Your task to perform on an android device: Go to wifi settings Image 0: 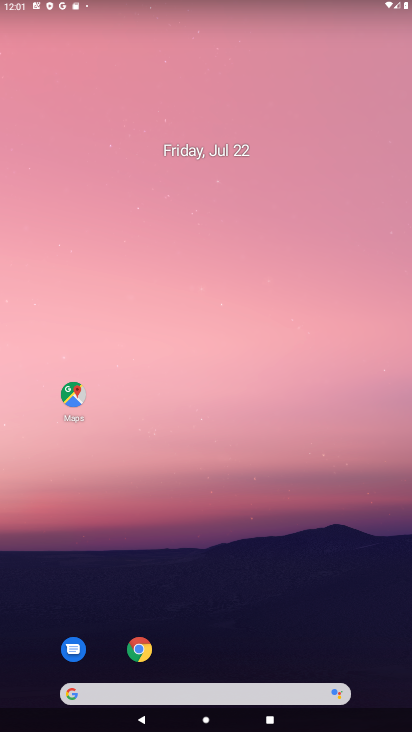
Step 0: drag from (218, 706) to (218, 400)
Your task to perform on an android device: Go to wifi settings Image 1: 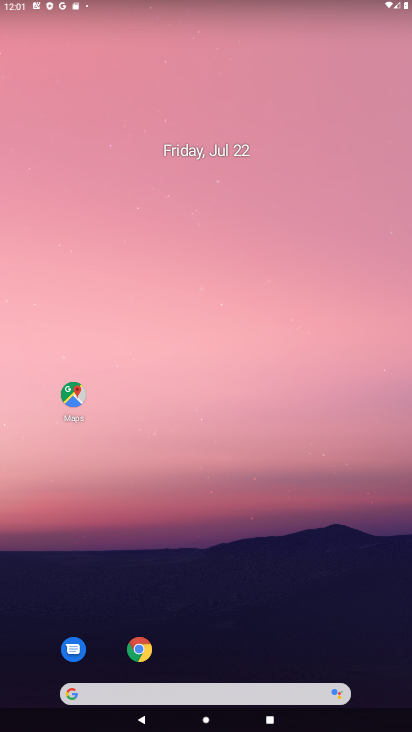
Step 1: drag from (237, 726) to (201, 83)
Your task to perform on an android device: Go to wifi settings Image 2: 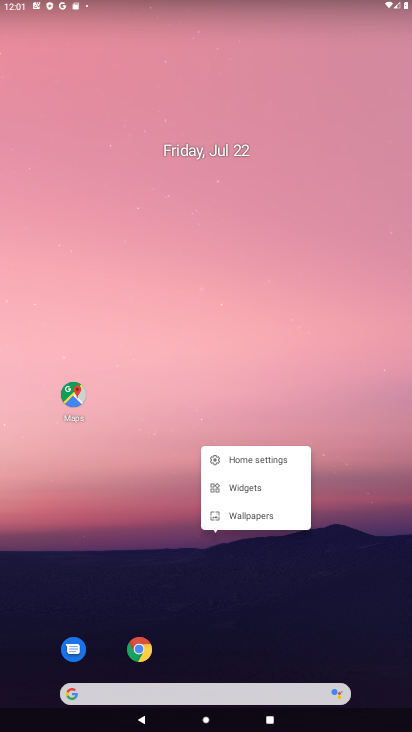
Step 2: click (293, 306)
Your task to perform on an android device: Go to wifi settings Image 3: 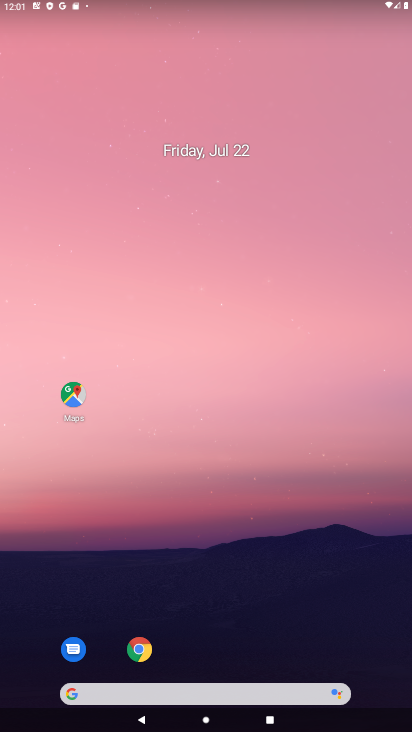
Step 3: drag from (231, 727) to (231, 463)
Your task to perform on an android device: Go to wifi settings Image 4: 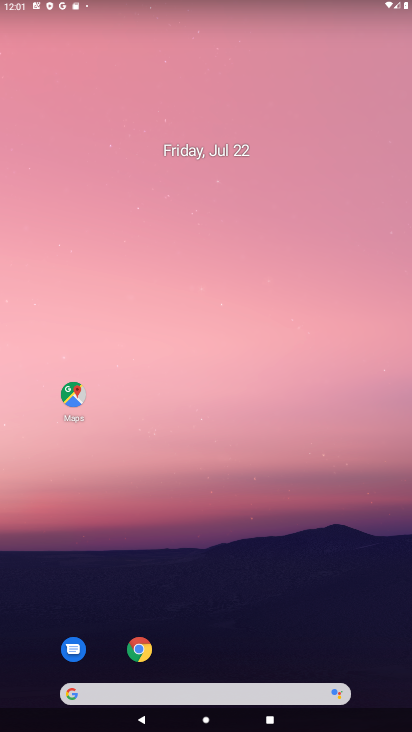
Step 4: drag from (230, 730) to (201, 125)
Your task to perform on an android device: Go to wifi settings Image 5: 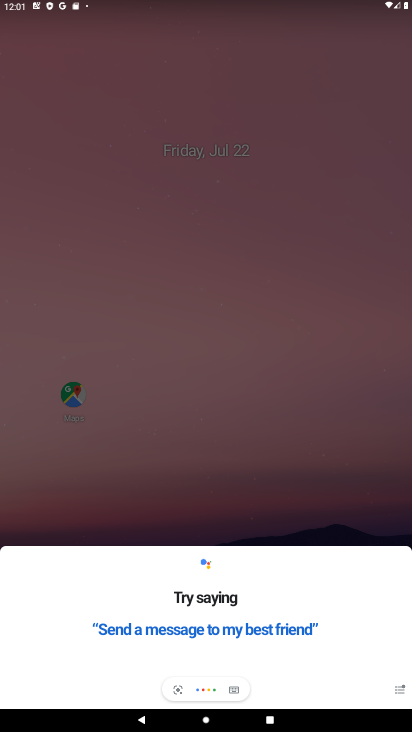
Step 5: press home button
Your task to perform on an android device: Go to wifi settings Image 6: 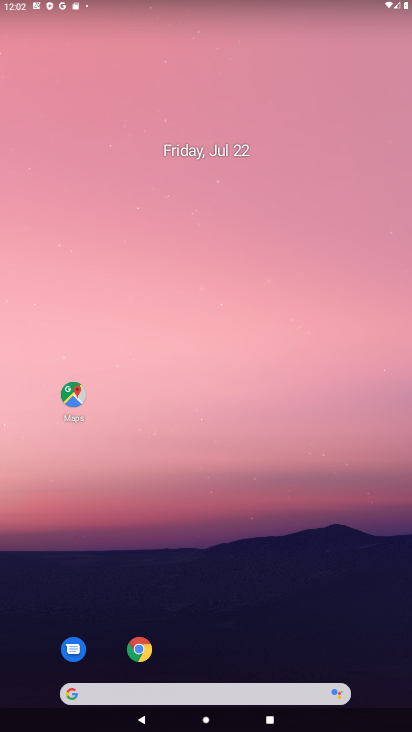
Step 6: drag from (235, 709) to (219, 334)
Your task to perform on an android device: Go to wifi settings Image 7: 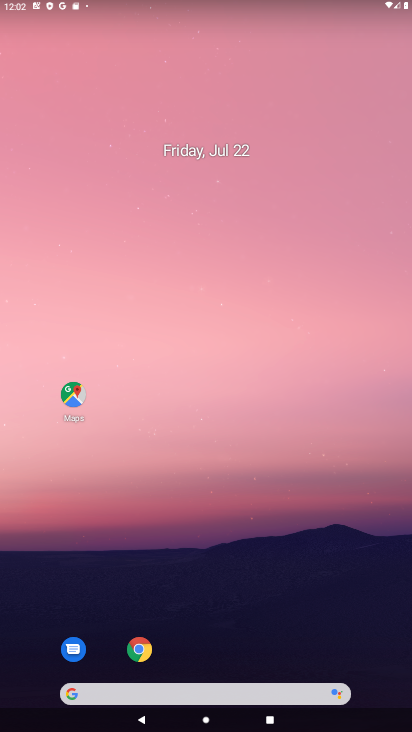
Step 7: drag from (239, 690) to (243, 54)
Your task to perform on an android device: Go to wifi settings Image 8: 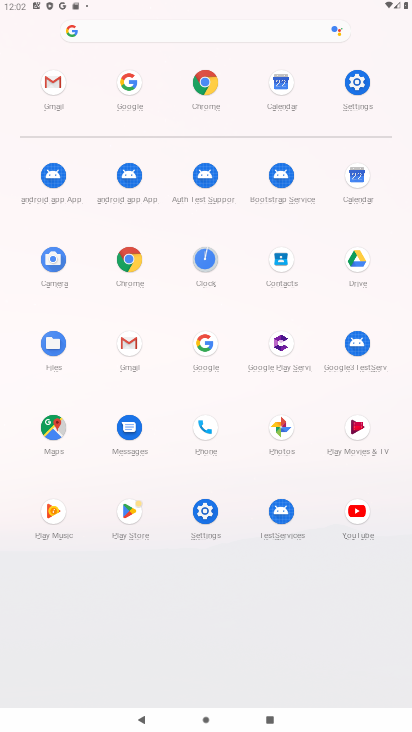
Step 8: click (359, 79)
Your task to perform on an android device: Go to wifi settings Image 9: 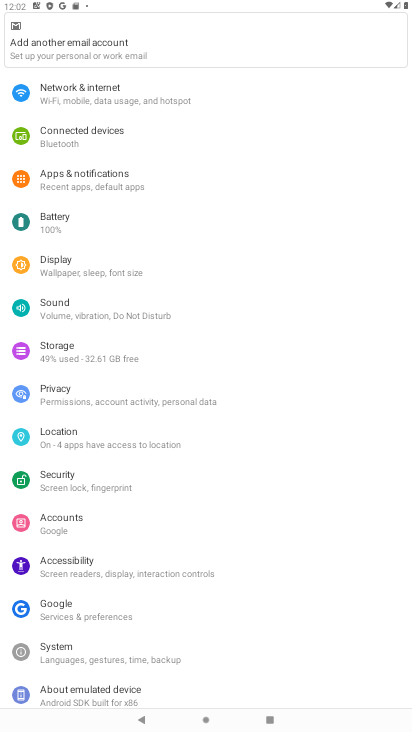
Step 9: click (115, 94)
Your task to perform on an android device: Go to wifi settings Image 10: 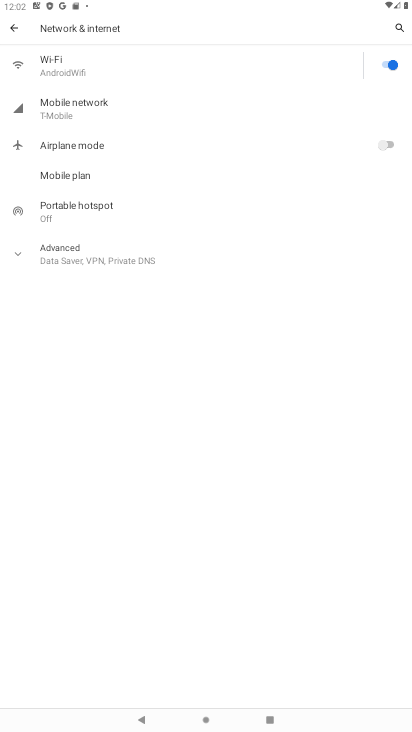
Step 10: click (55, 61)
Your task to perform on an android device: Go to wifi settings Image 11: 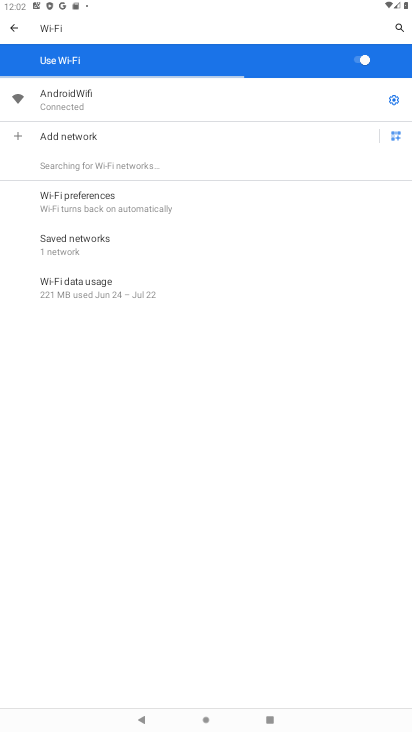
Step 11: task complete